Your task to perform on an android device: Open wifi settings Image 0: 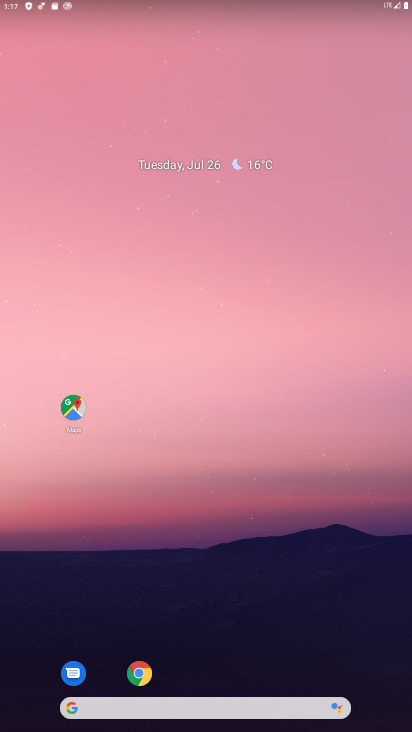
Step 0: drag from (201, 722) to (187, 15)
Your task to perform on an android device: Open wifi settings Image 1: 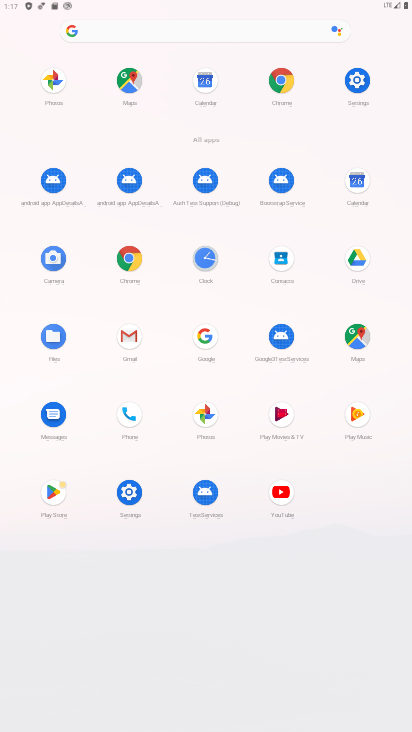
Step 1: click (358, 83)
Your task to perform on an android device: Open wifi settings Image 2: 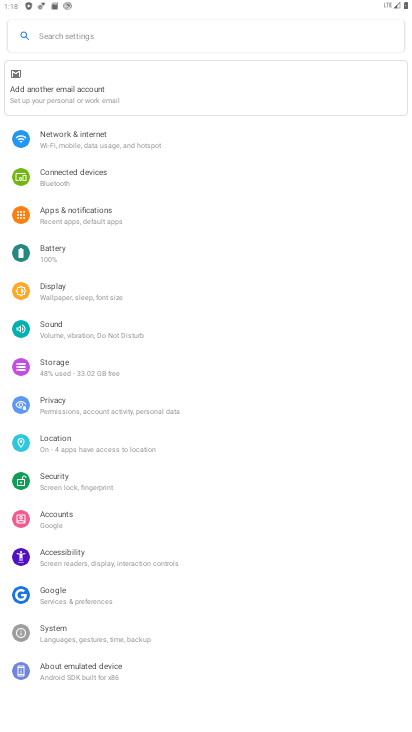
Step 2: click (94, 139)
Your task to perform on an android device: Open wifi settings Image 3: 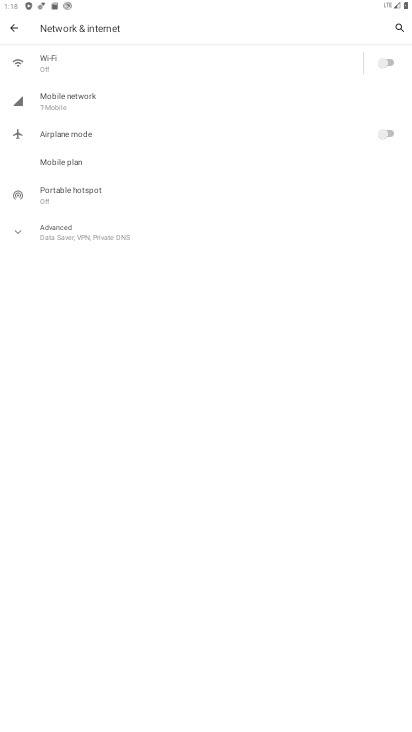
Step 3: click (39, 64)
Your task to perform on an android device: Open wifi settings Image 4: 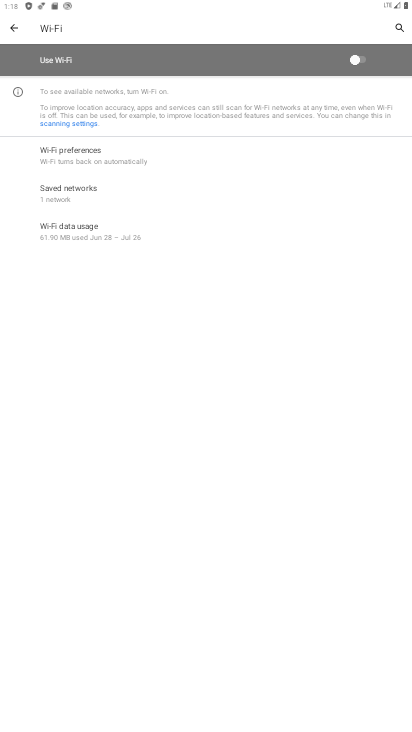
Step 4: task complete